Your task to perform on an android device: turn on notifications settings in the gmail app Image 0: 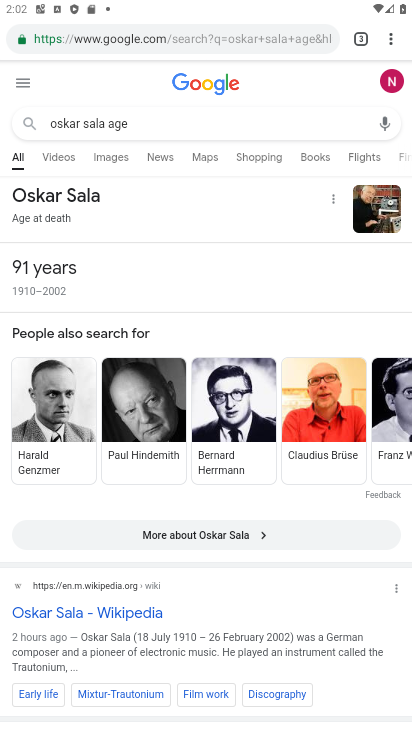
Step 0: press home button
Your task to perform on an android device: turn on notifications settings in the gmail app Image 1: 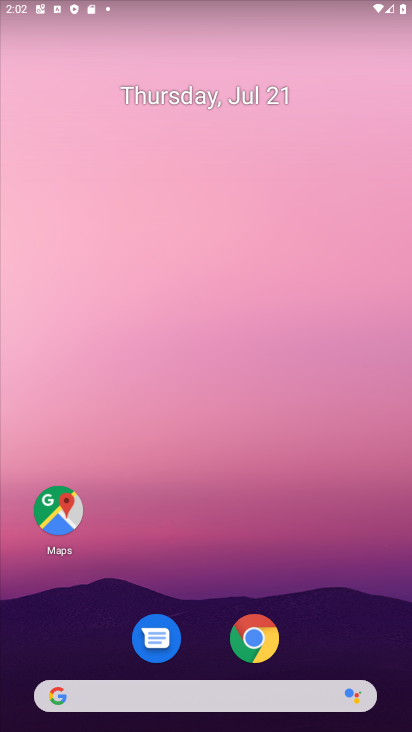
Step 1: drag from (187, 706) to (376, 9)
Your task to perform on an android device: turn on notifications settings in the gmail app Image 2: 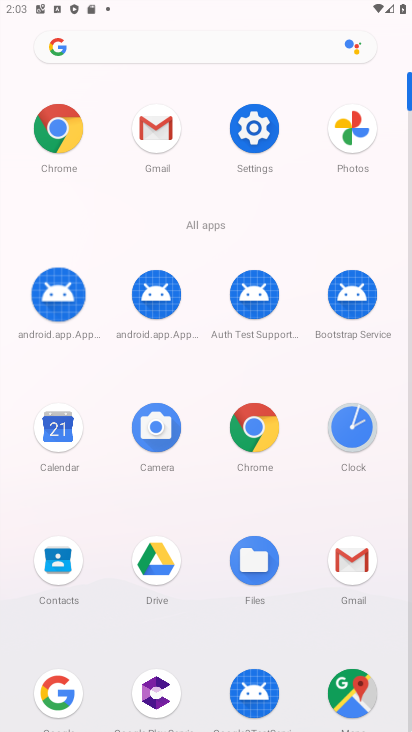
Step 2: click (157, 128)
Your task to perform on an android device: turn on notifications settings in the gmail app Image 3: 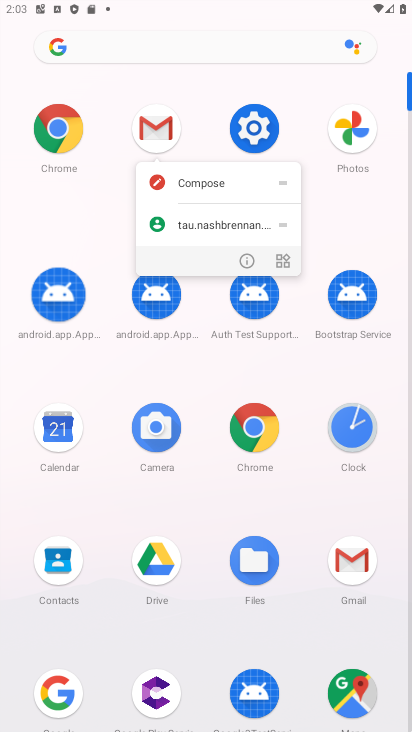
Step 3: click (249, 257)
Your task to perform on an android device: turn on notifications settings in the gmail app Image 4: 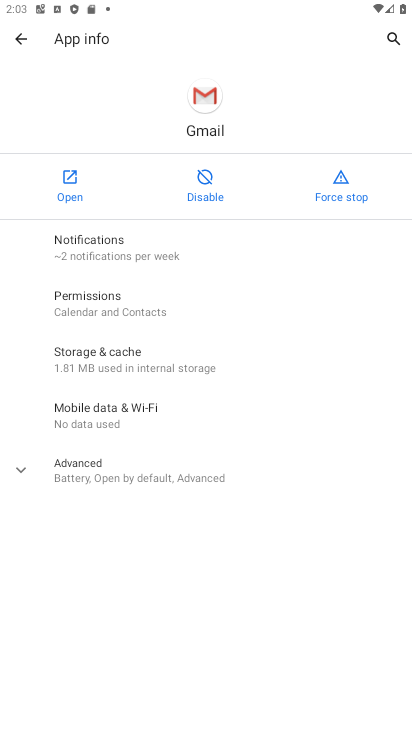
Step 4: click (159, 251)
Your task to perform on an android device: turn on notifications settings in the gmail app Image 5: 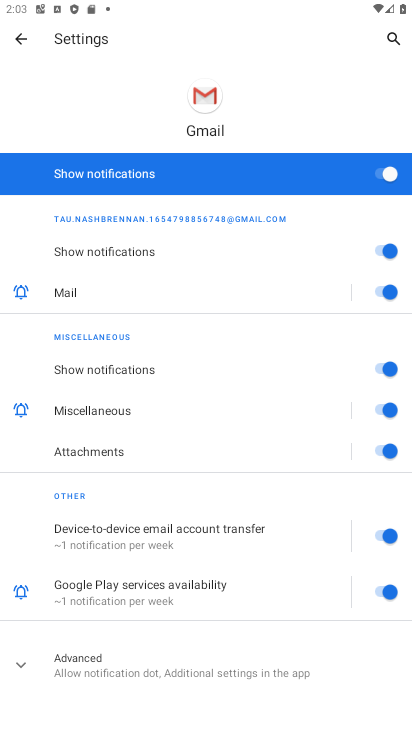
Step 5: task complete